Your task to perform on an android device: turn off sleep mode Image 0: 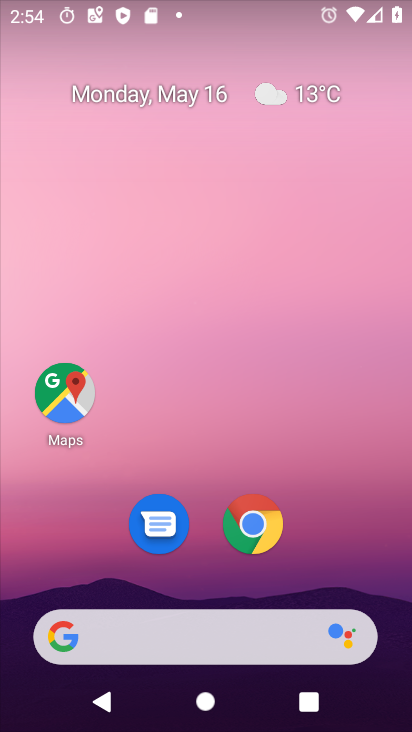
Step 0: drag from (334, 346) to (327, 50)
Your task to perform on an android device: turn off sleep mode Image 1: 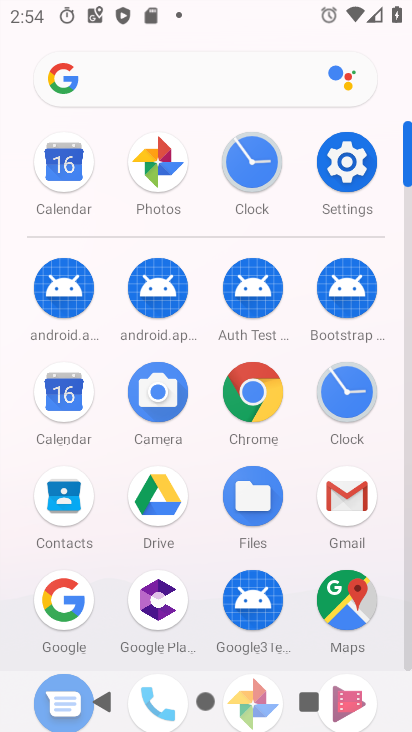
Step 1: click (335, 165)
Your task to perform on an android device: turn off sleep mode Image 2: 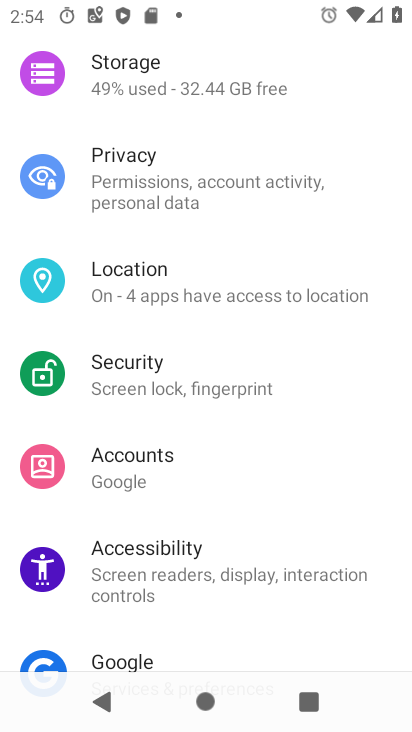
Step 2: drag from (259, 243) to (249, 489)
Your task to perform on an android device: turn off sleep mode Image 3: 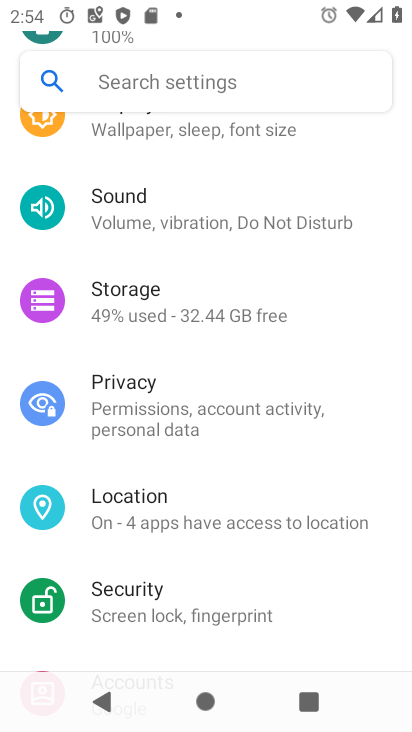
Step 3: drag from (250, 287) to (255, 488)
Your task to perform on an android device: turn off sleep mode Image 4: 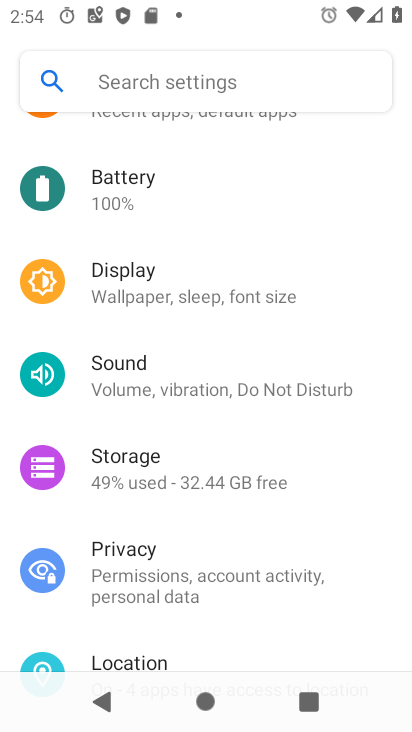
Step 4: click (230, 290)
Your task to perform on an android device: turn off sleep mode Image 5: 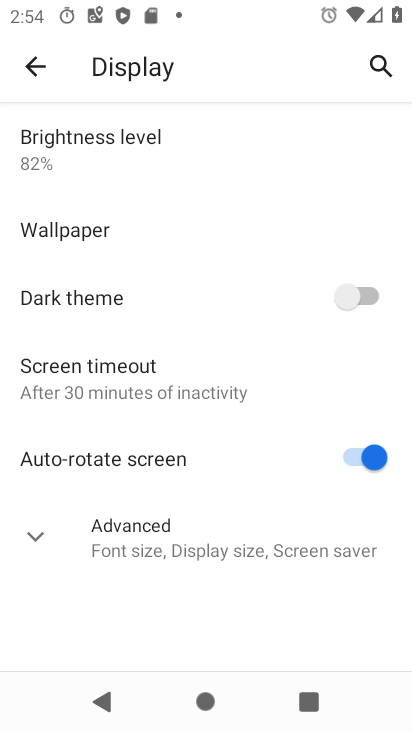
Step 5: click (37, 530)
Your task to perform on an android device: turn off sleep mode Image 6: 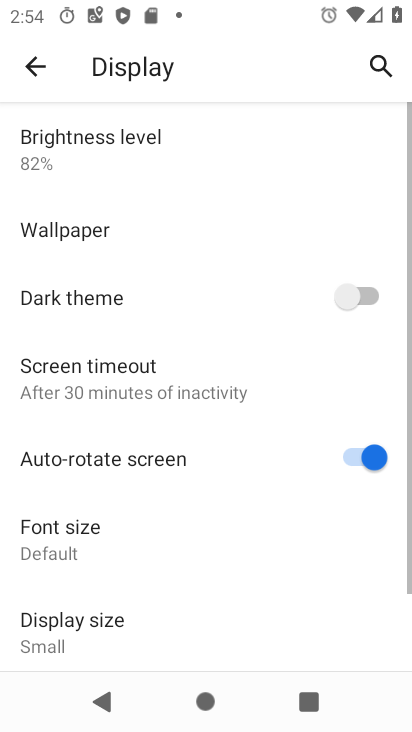
Step 6: task complete